Your task to perform on an android device: open wifi settings Image 0: 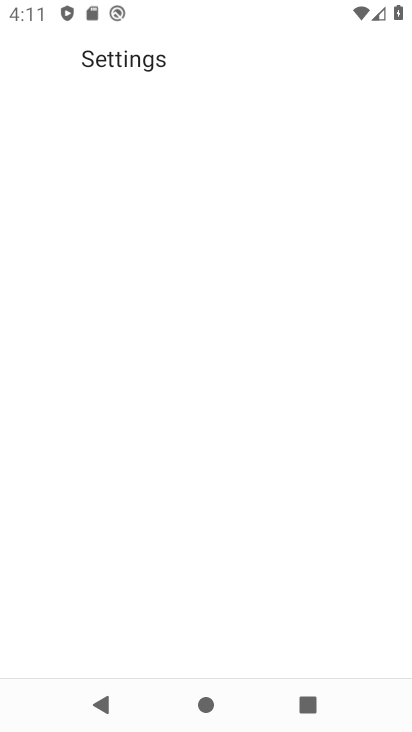
Step 0: drag from (193, 628) to (157, 17)
Your task to perform on an android device: open wifi settings Image 1: 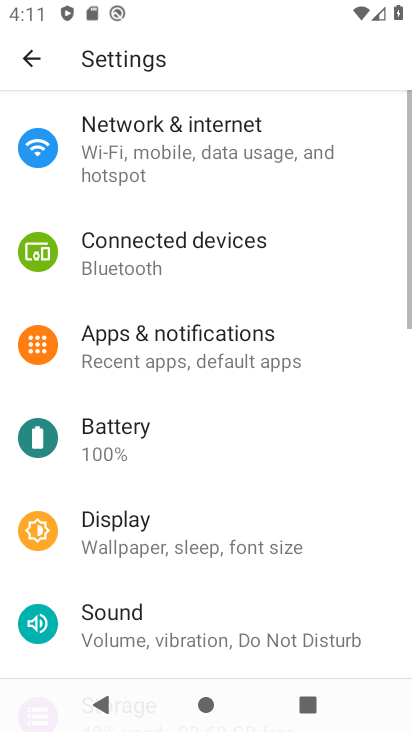
Step 1: click (159, 122)
Your task to perform on an android device: open wifi settings Image 2: 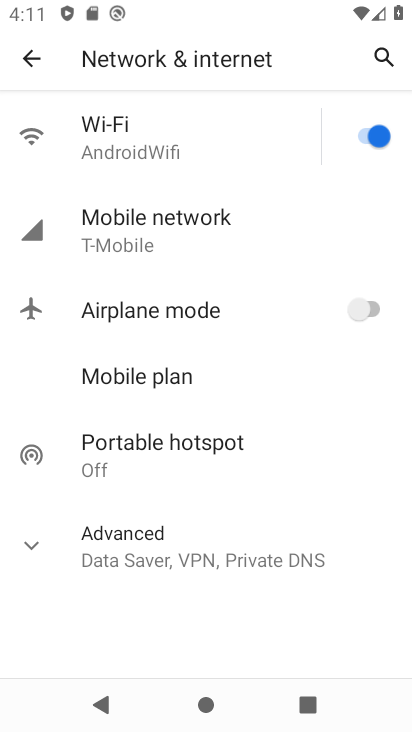
Step 2: click (159, 122)
Your task to perform on an android device: open wifi settings Image 3: 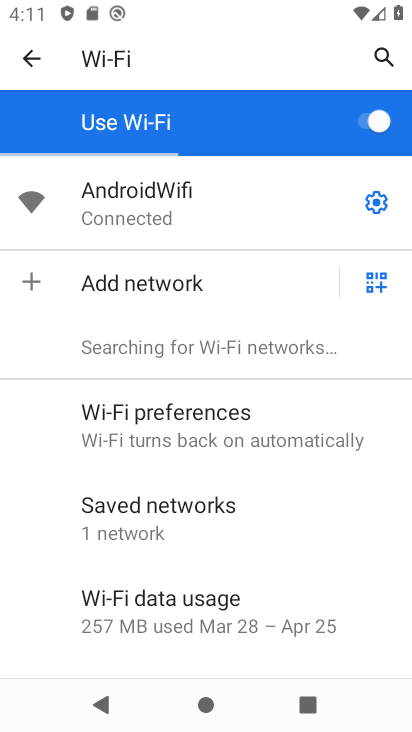
Step 3: task complete